Your task to perform on an android device: Open Google Maps and go to "Timeline" Image 0: 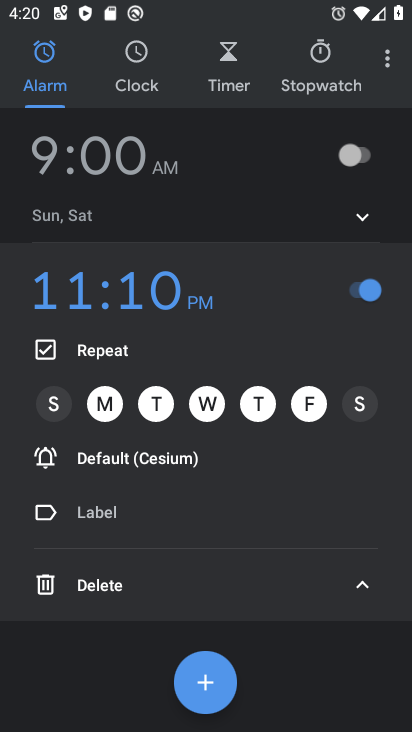
Step 0: press home button
Your task to perform on an android device: Open Google Maps and go to "Timeline" Image 1: 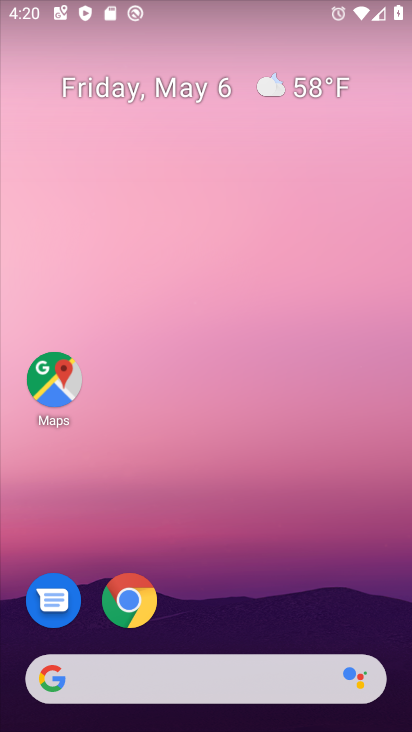
Step 1: click (71, 373)
Your task to perform on an android device: Open Google Maps and go to "Timeline" Image 2: 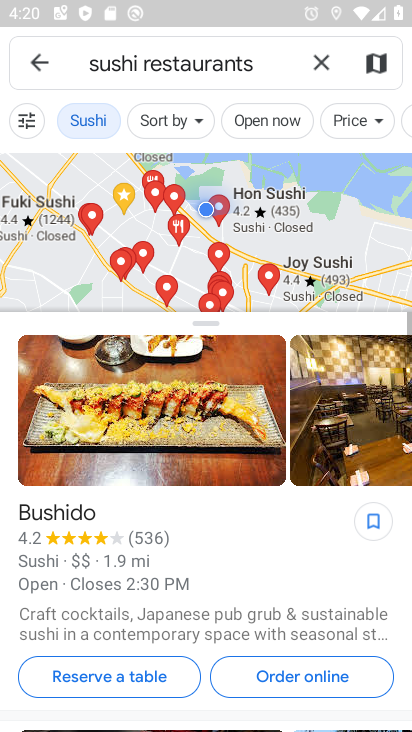
Step 2: click (39, 60)
Your task to perform on an android device: Open Google Maps and go to "Timeline" Image 3: 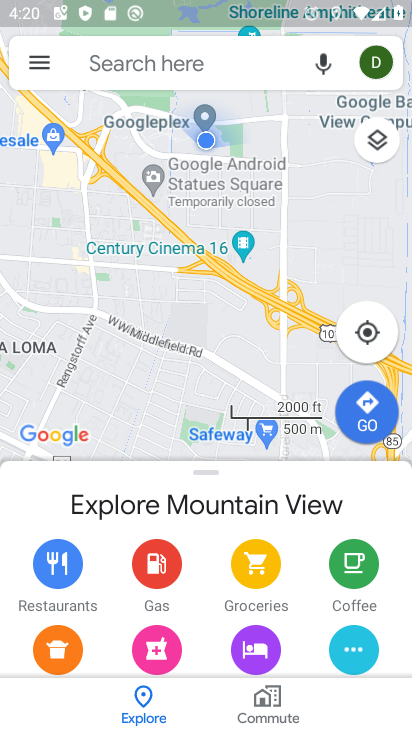
Step 3: click (39, 60)
Your task to perform on an android device: Open Google Maps and go to "Timeline" Image 4: 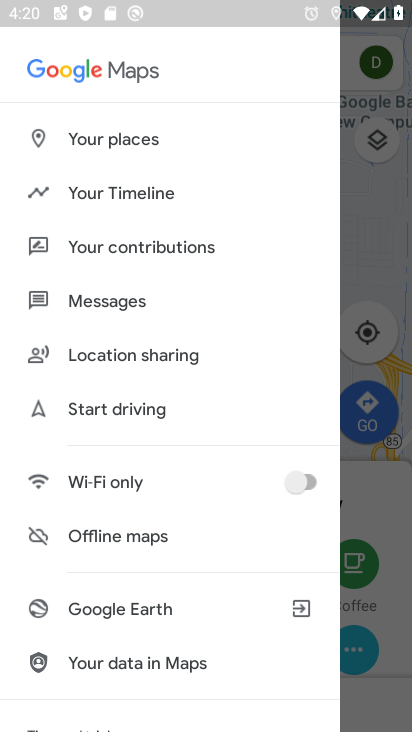
Step 4: click (147, 193)
Your task to perform on an android device: Open Google Maps and go to "Timeline" Image 5: 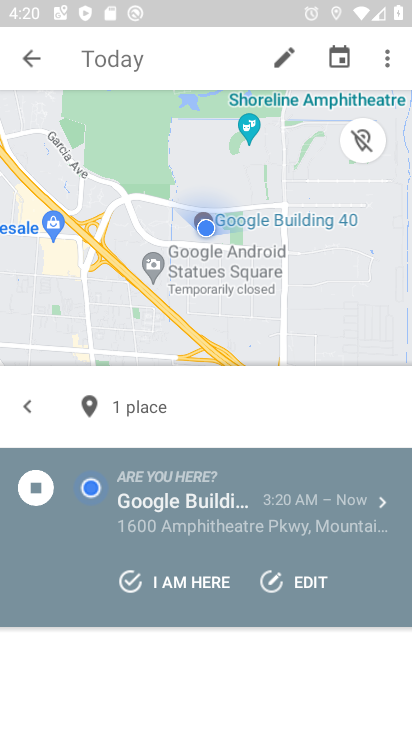
Step 5: task complete